Your task to perform on an android device: open the mobile data screen to see how much data has been used Image 0: 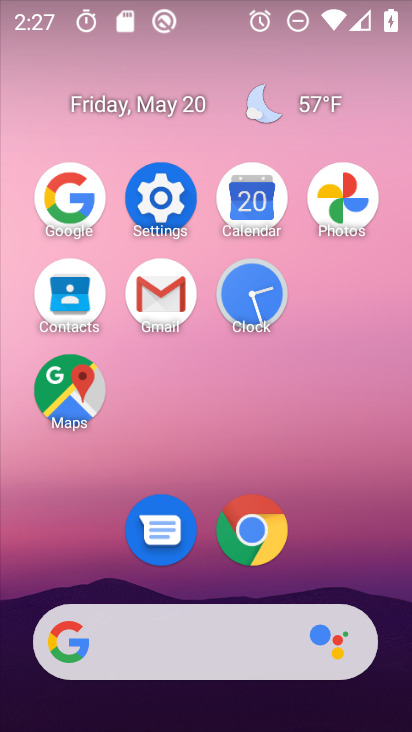
Step 0: click (188, 188)
Your task to perform on an android device: open the mobile data screen to see how much data has been used Image 1: 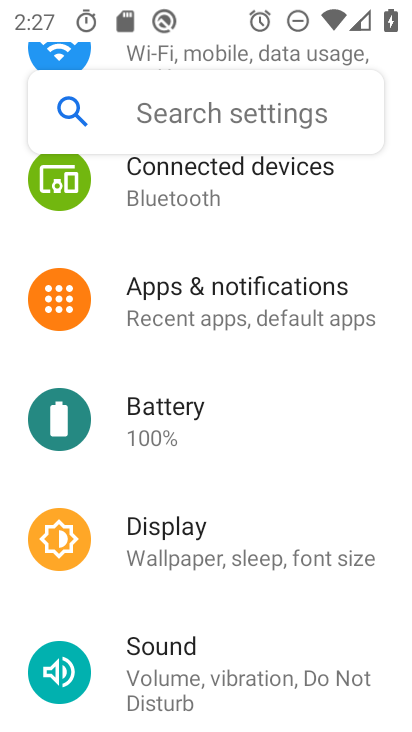
Step 1: drag from (220, 553) to (230, 204)
Your task to perform on an android device: open the mobile data screen to see how much data has been used Image 2: 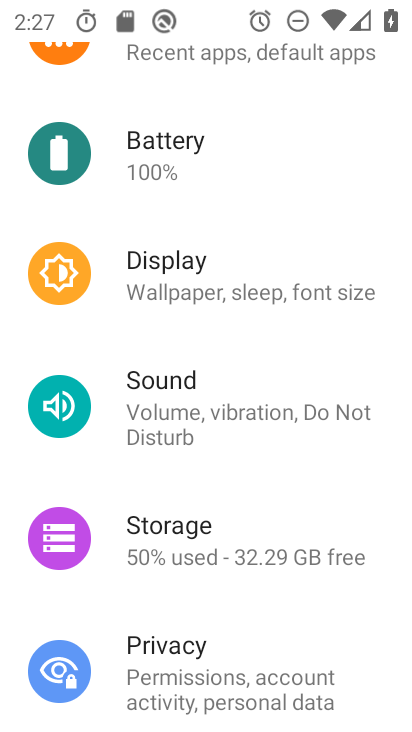
Step 2: drag from (274, 197) to (299, 710)
Your task to perform on an android device: open the mobile data screen to see how much data has been used Image 3: 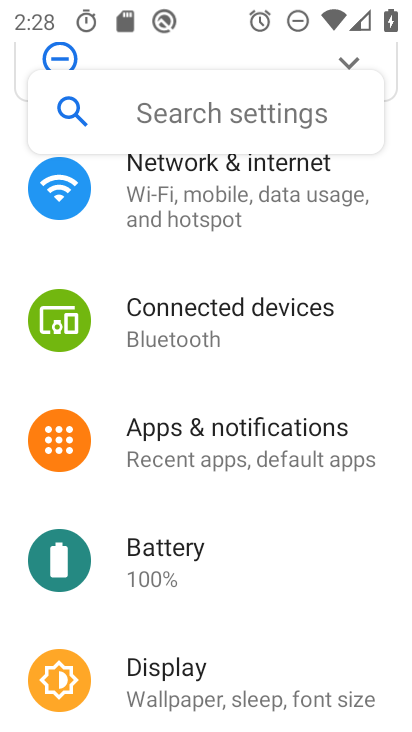
Step 3: click (182, 217)
Your task to perform on an android device: open the mobile data screen to see how much data has been used Image 4: 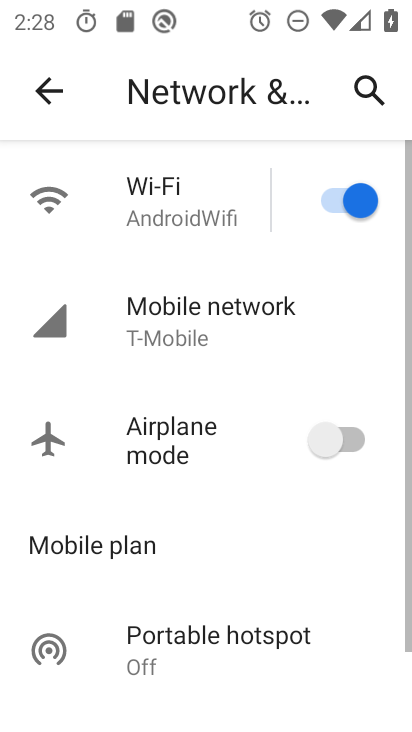
Step 4: click (219, 297)
Your task to perform on an android device: open the mobile data screen to see how much data has been used Image 5: 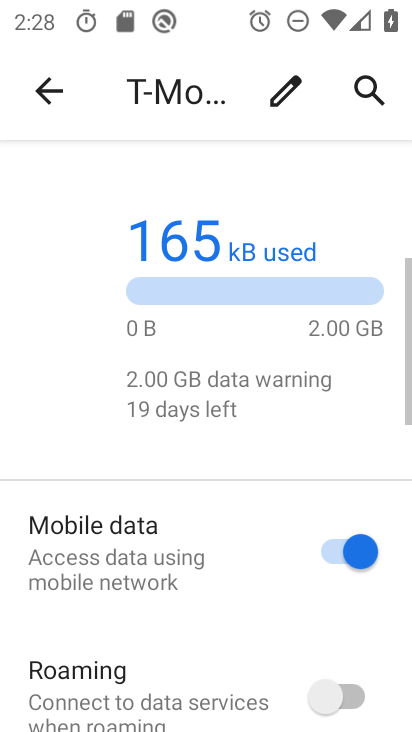
Step 5: drag from (158, 640) to (130, 246)
Your task to perform on an android device: open the mobile data screen to see how much data has been used Image 6: 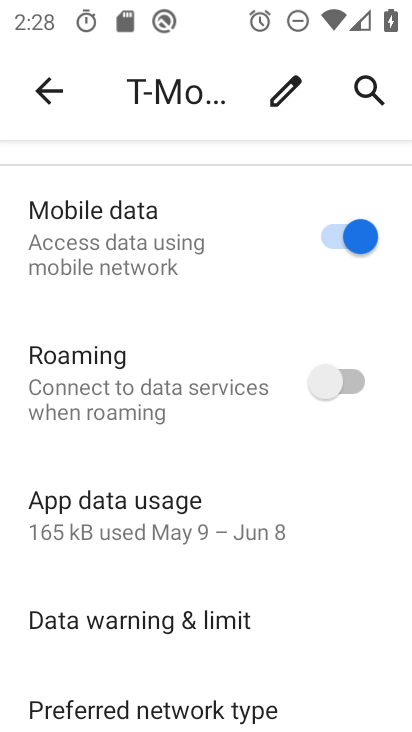
Step 6: click (136, 502)
Your task to perform on an android device: open the mobile data screen to see how much data has been used Image 7: 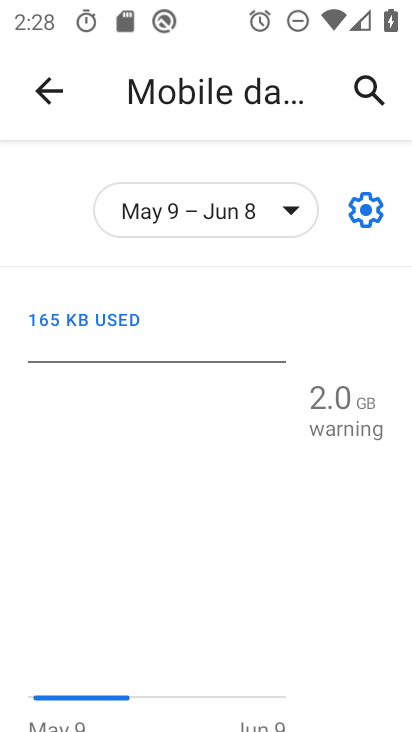
Step 7: task complete